Your task to perform on an android device: Go to accessibility settings Image 0: 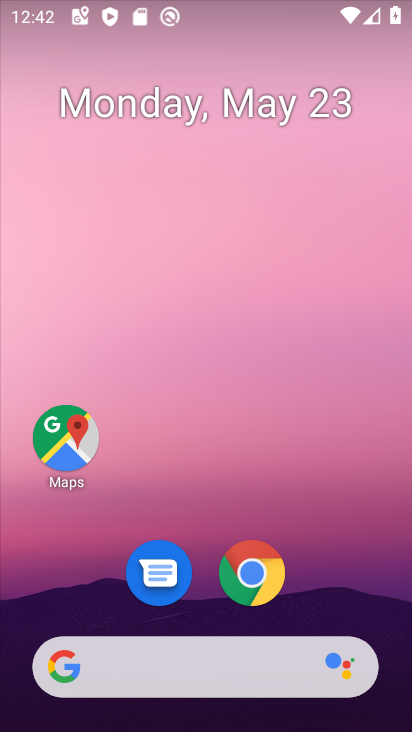
Step 0: press home button
Your task to perform on an android device: Go to accessibility settings Image 1: 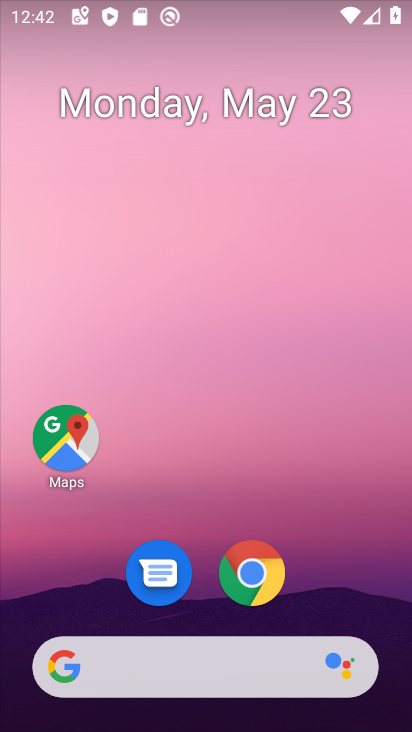
Step 1: drag from (279, 654) to (326, 41)
Your task to perform on an android device: Go to accessibility settings Image 2: 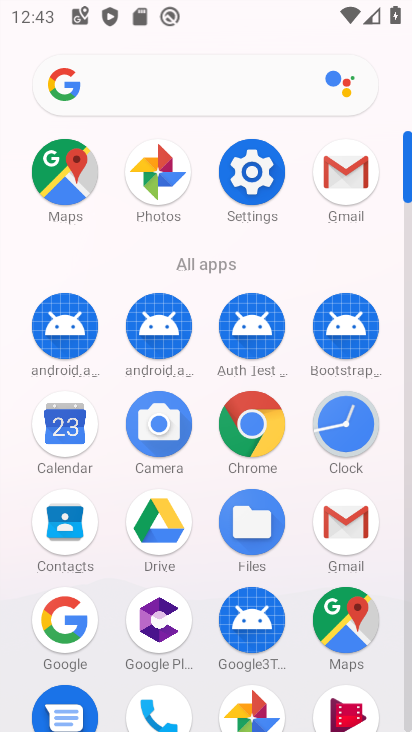
Step 2: click (261, 181)
Your task to perform on an android device: Go to accessibility settings Image 3: 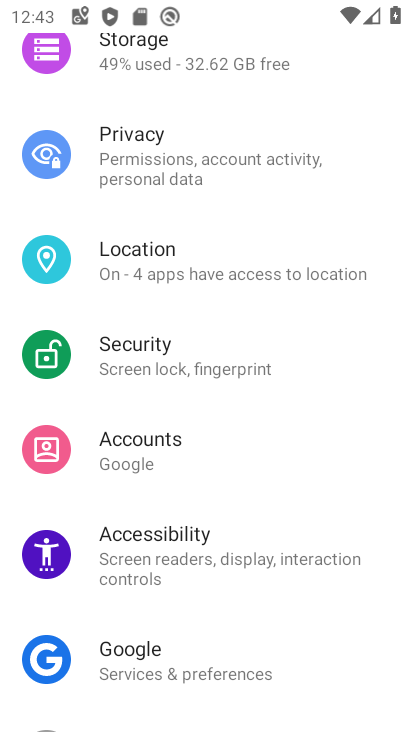
Step 3: click (237, 571)
Your task to perform on an android device: Go to accessibility settings Image 4: 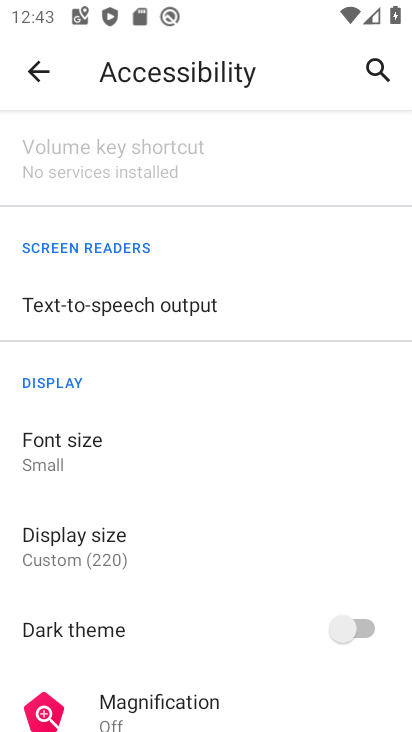
Step 4: task complete